Your task to perform on an android device: all mails in gmail Image 0: 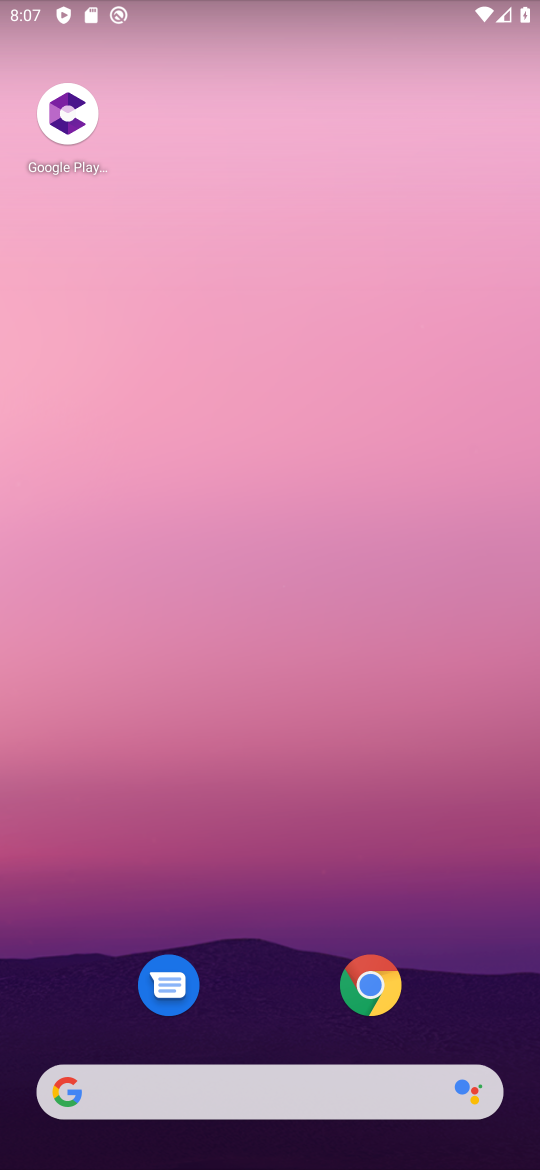
Step 0: drag from (263, 949) to (238, 338)
Your task to perform on an android device: all mails in gmail Image 1: 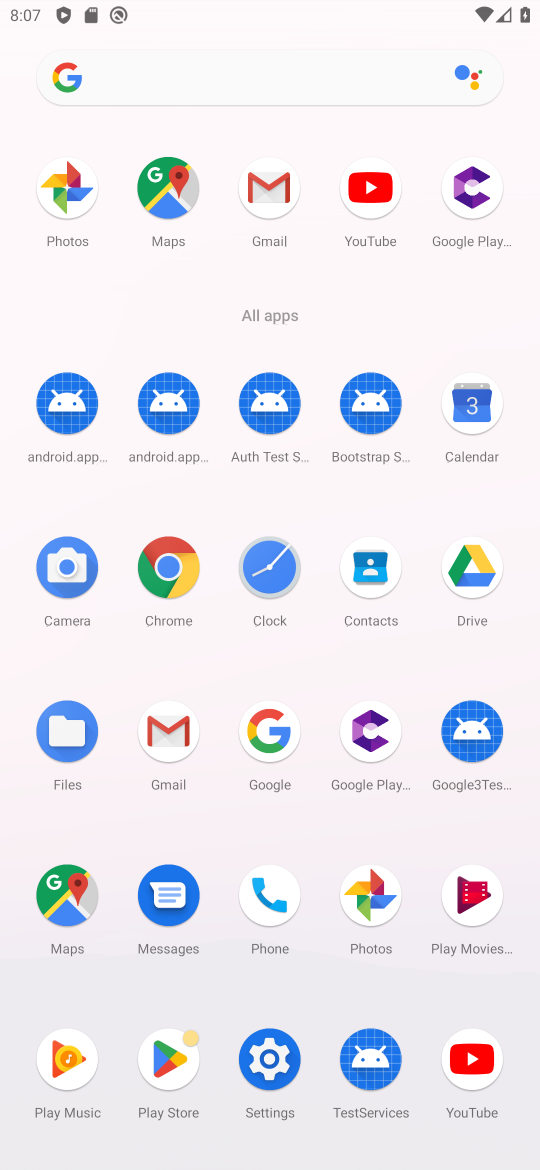
Step 1: click (273, 185)
Your task to perform on an android device: all mails in gmail Image 2: 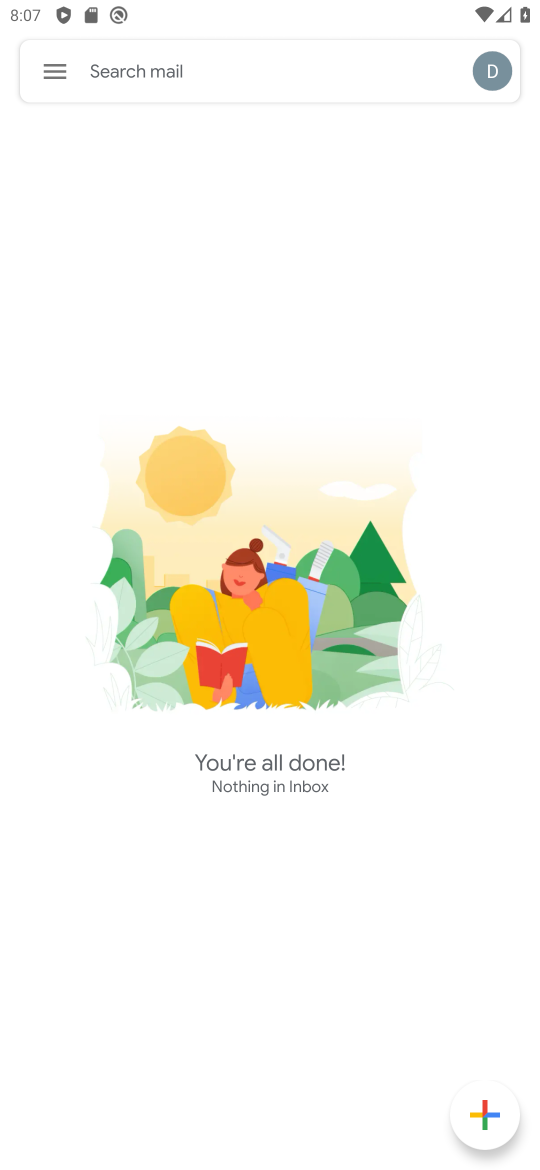
Step 2: click (42, 76)
Your task to perform on an android device: all mails in gmail Image 3: 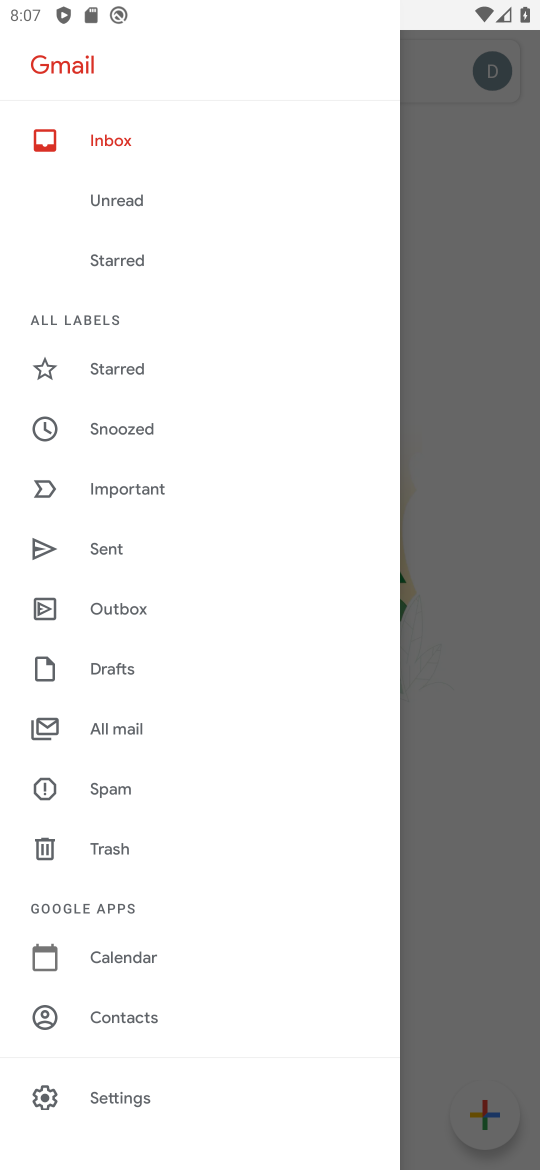
Step 3: click (153, 737)
Your task to perform on an android device: all mails in gmail Image 4: 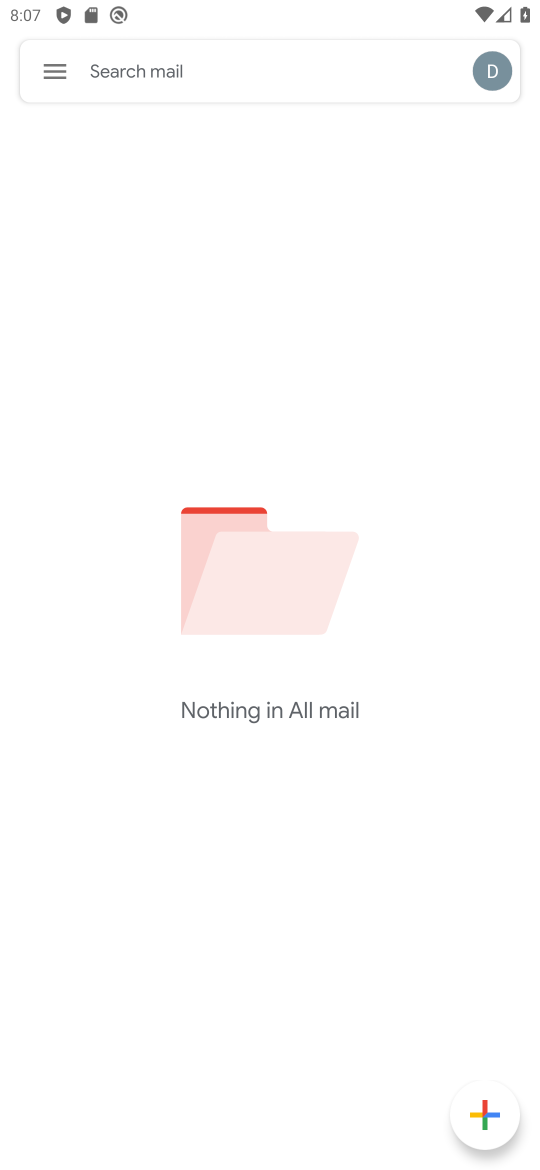
Step 4: task complete